Your task to perform on an android device: Search for pizza restaurants on Maps Image 0: 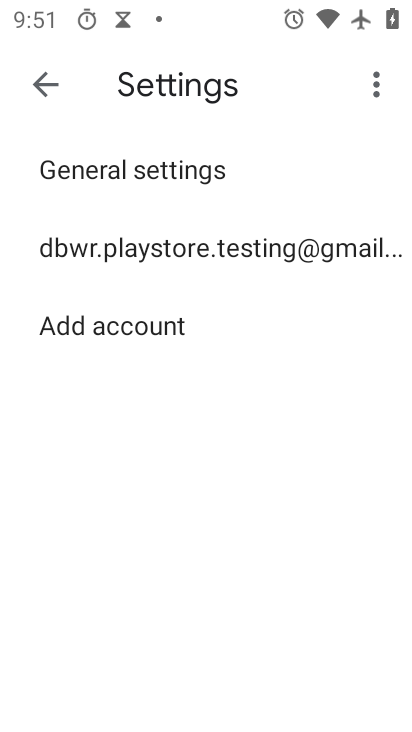
Step 0: press home button
Your task to perform on an android device: Search for pizza restaurants on Maps Image 1: 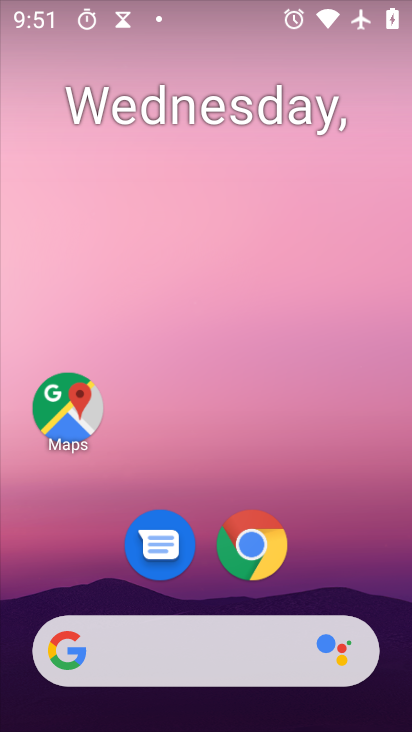
Step 1: click (71, 397)
Your task to perform on an android device: Search for pizza restaurants on Maps Image 2: 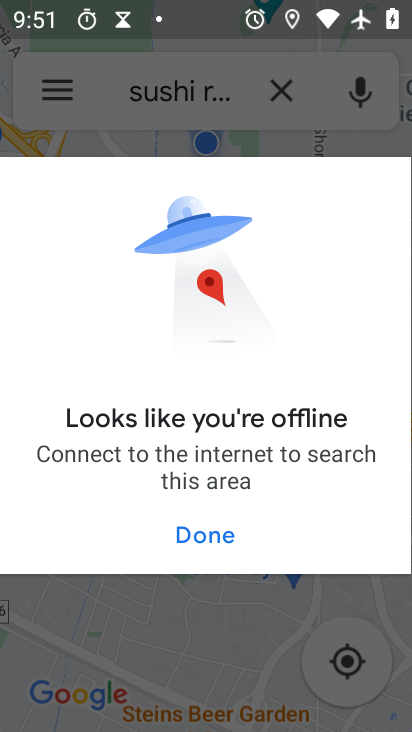
Step 2: click (211, 547)
Your task to perform on an android device: Search for pizza restaurants on Maps Image 3: 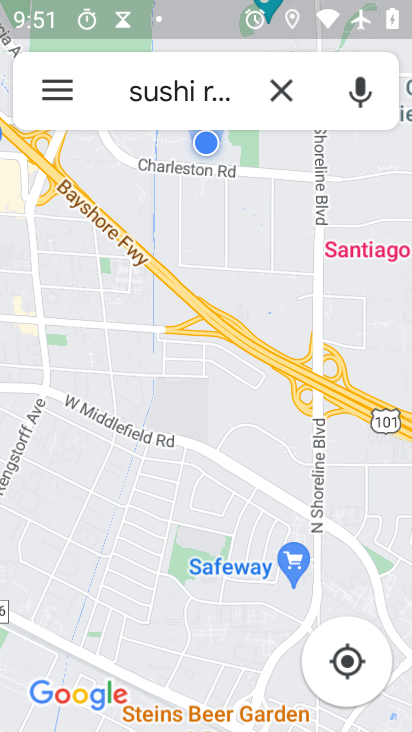
Step 3: click (277, 91)
Your task to perform on an android device: Search for pizza restaurants on Maps Image 4: 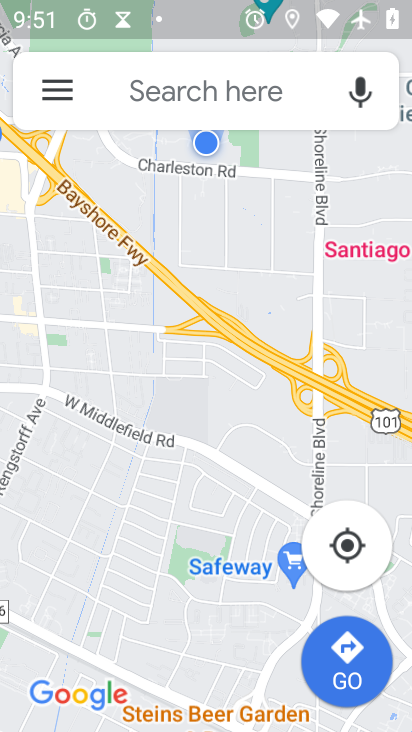
Step 4: click (179, 86)
Your task to perform on an android device: Search for pizza restaurants on Maps Image 5: 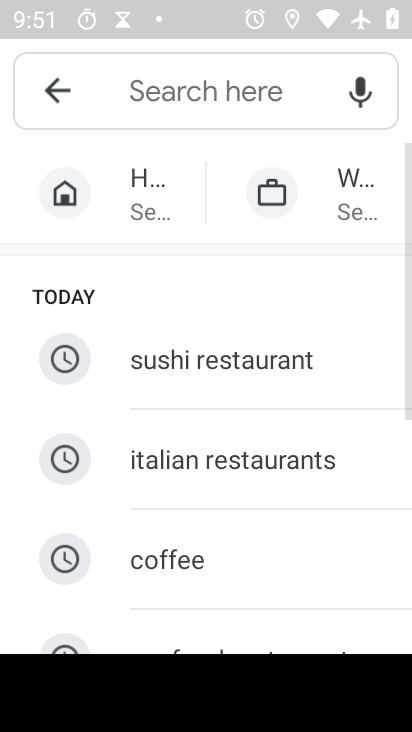
Step 5: drag from (245, 610) to (321, 214)
Your task to perform on an android device: Search for pizza restaurants on Maps Image 6: 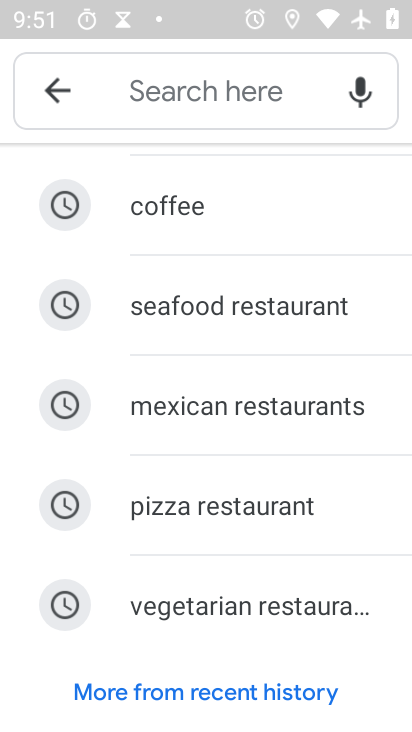
Step 6: click (205, 499)
Your task to perform on an android device: Search for pizza restaurants on Maps Image 7: 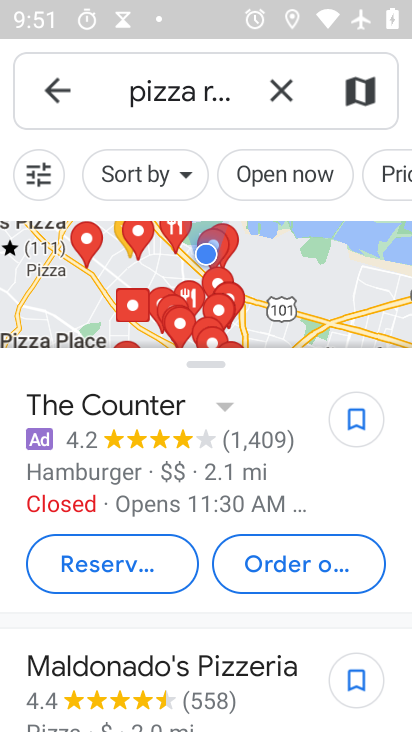
Step 7: task complete